Your task to perform on an android device: delete a single message in the gmail app Image 0: 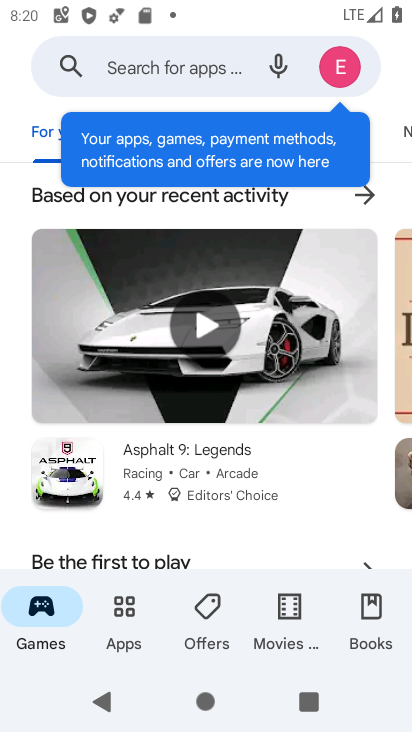
Step 0: press home button
Your task to perform on an android device: delete a single message in the gmail app Image 1: 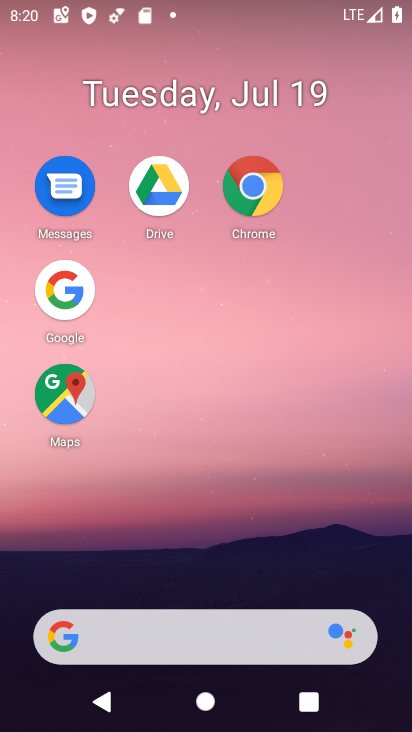
Step 1: drag from (200, 587) to (146, 77)
Your task to perform on an android device: delete a single message in the gmail app Image 2: 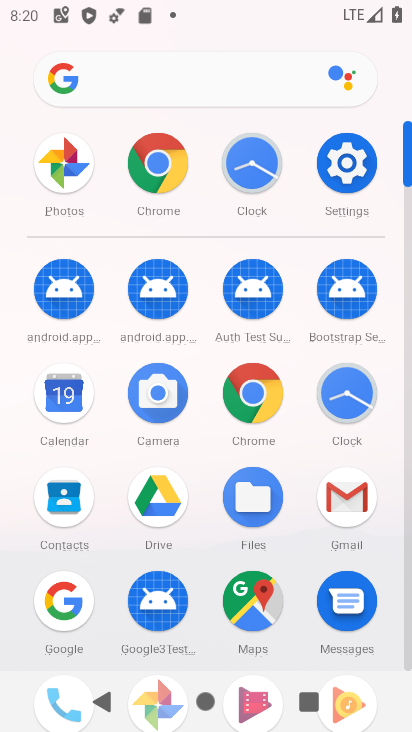
Step 2: click (352, 495)
Your task to perform on an android device: delete a single message in the gmail app Image 3: 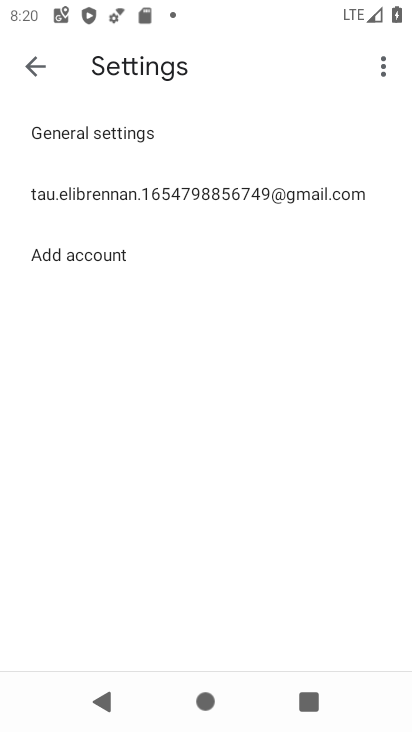
Step 3: click (33, 73)
Your task to perform on an android device: delete a single message in the gmail app Image 4: 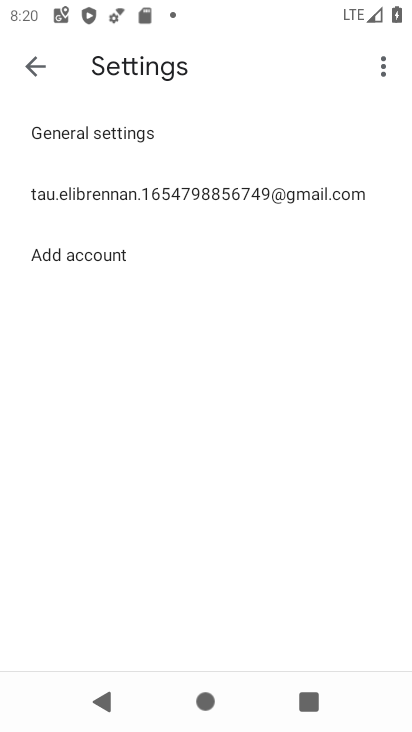
Step 4: click (33, 73)
Your task to perform on an android device: delete a single message in the gmail app Image 5: 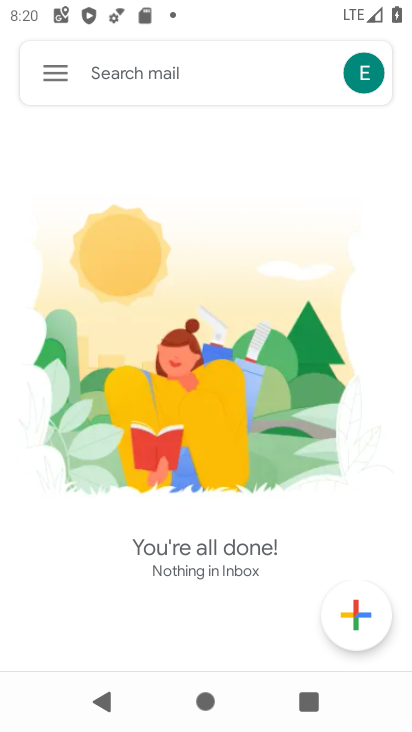
Step 5: task complete